Your task to perform on an android device: Open the calendar and show me this week's events Image 0: 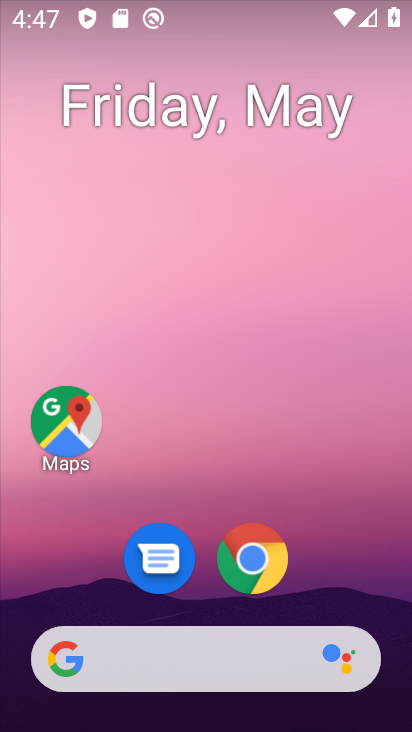
Step 0: drag from (398, 623) to (241, 111)
Your task to perform on an android device: Open the calendar and show me this week's events Image 1: 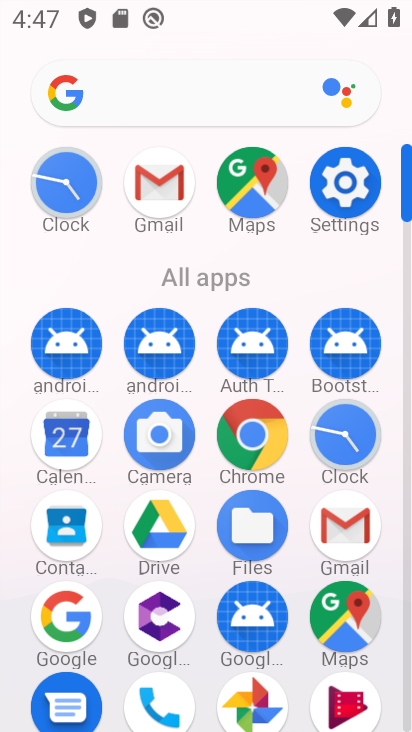
Step 1: click (72, 437)
Your task to perform on an android device: Open the calendar and show me this week's events Image 2: 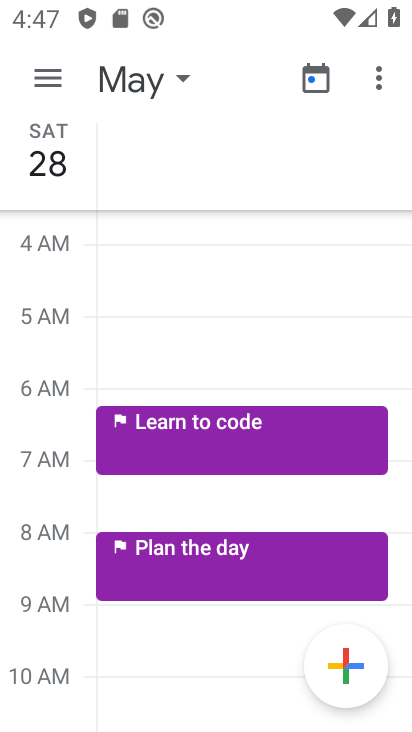
Step 2: click (171, 87)
Your task to perform on an android device: Open the calendar and show me this week's events Image 3: 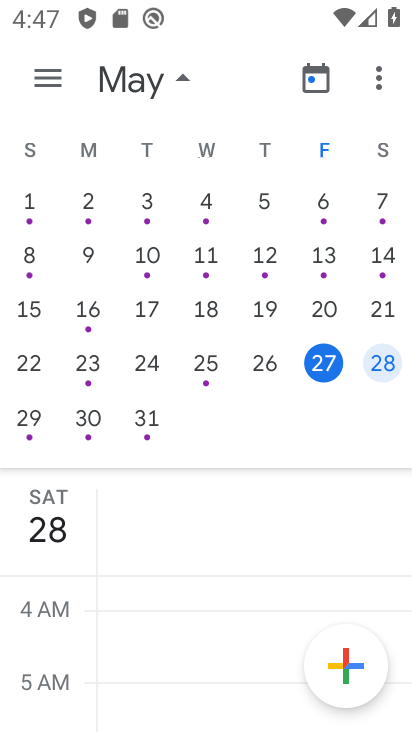
Step 3: click (29, 88)
Your task to perform on an android device: Open the calendar and show me this week's events Image 4: 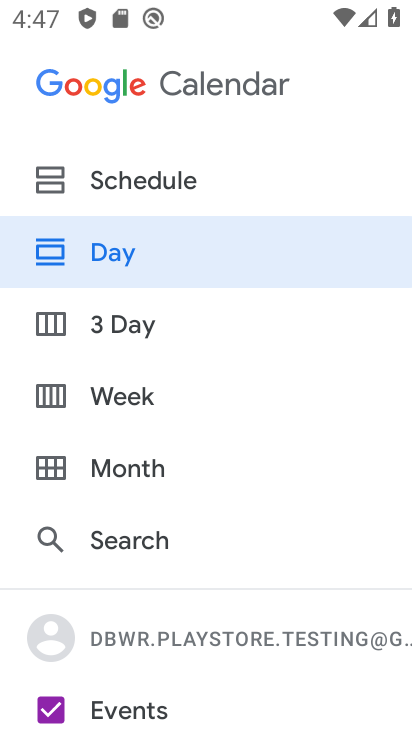
Step 4: click (162, 392)
Your task to perform on an android device: Open the calendar and show me this week's events Image 5: 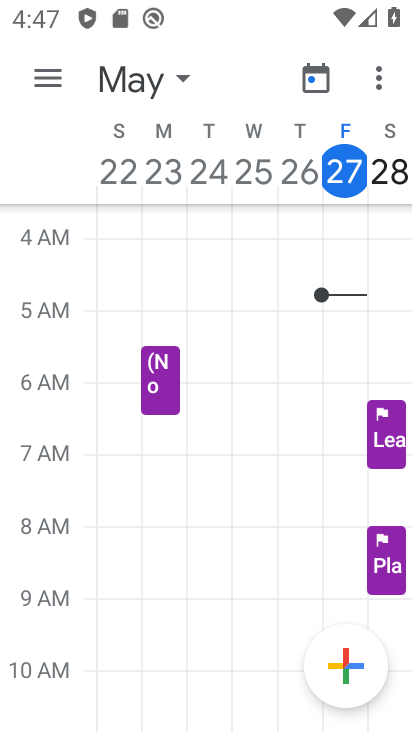
Step 5: task complete